Your task to perform on an android device: Go to Google Image 0: 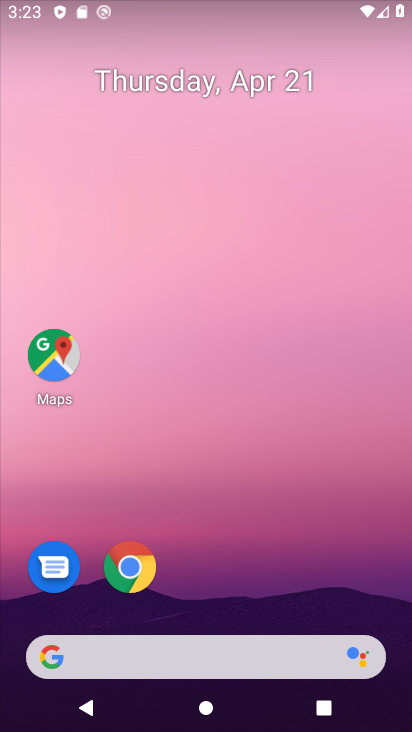
Step 0: click (52, 651)
Your task to perform on an android device: Go to Google Image 1: 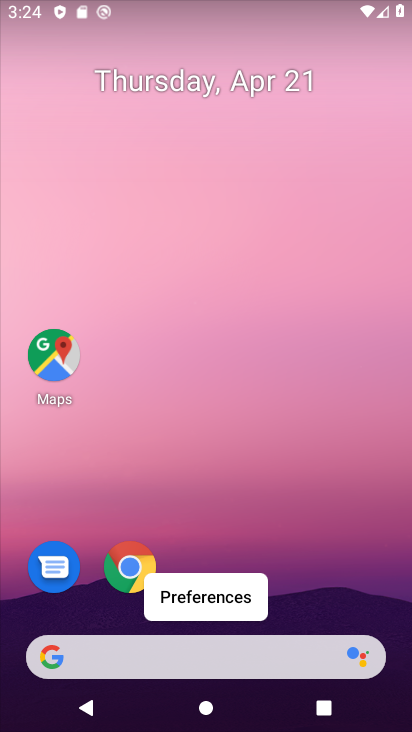
Step 1: click (52, 648)
Your task to perform on an android device: Go to Google Image 2: 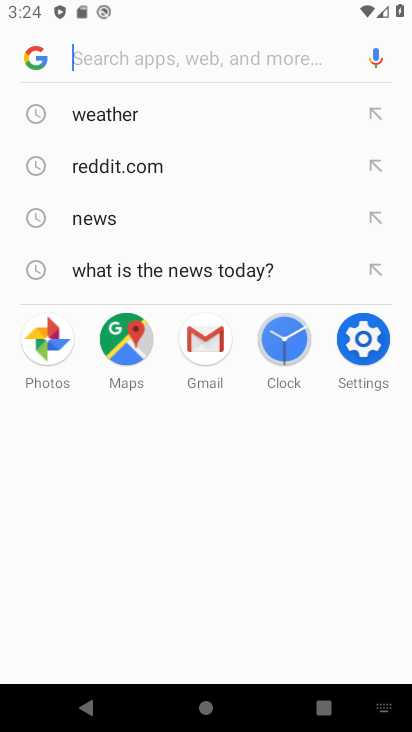
Step 2: click (31, 49)
Your task to perform on an android device: Go to Google Image 3: 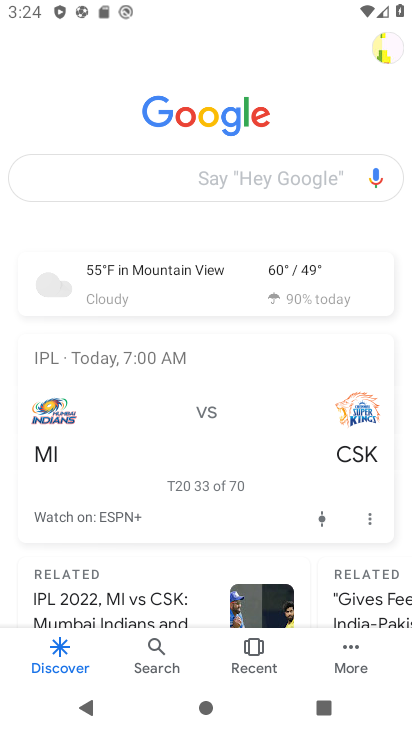
Step 3: task complete